Your task to perform on an android device: turn off data saver in the chrome app Image 0: 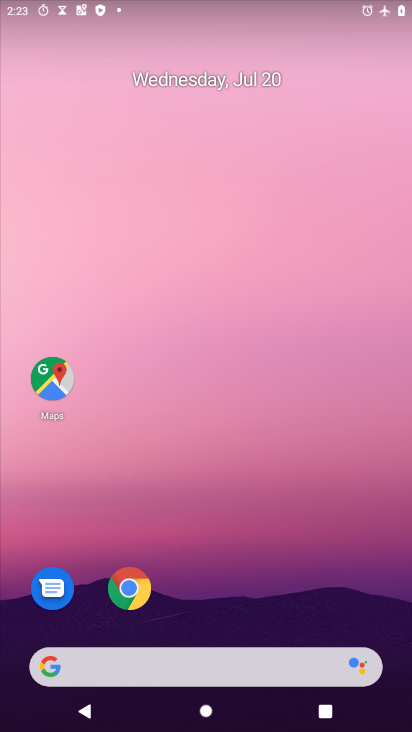
Step 0: drag from (227, 652) to (243, 37)
Your task to perform on an android device: turn off data saver in the chrome app Image 1: 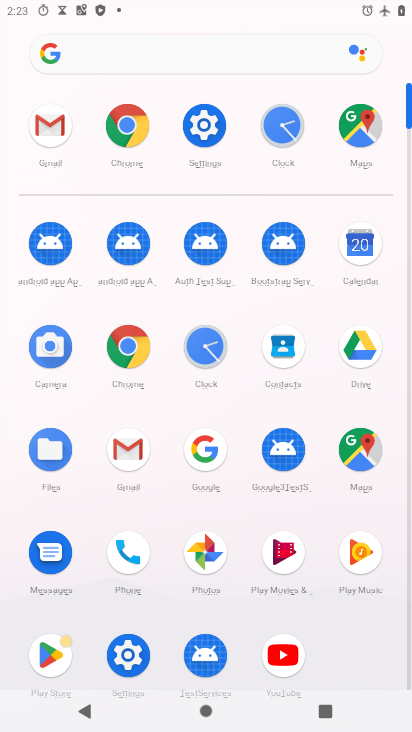
Step 1: click (113, 329)
Your task to perform on an android device: turn off data saver in the chrome app Image 2: 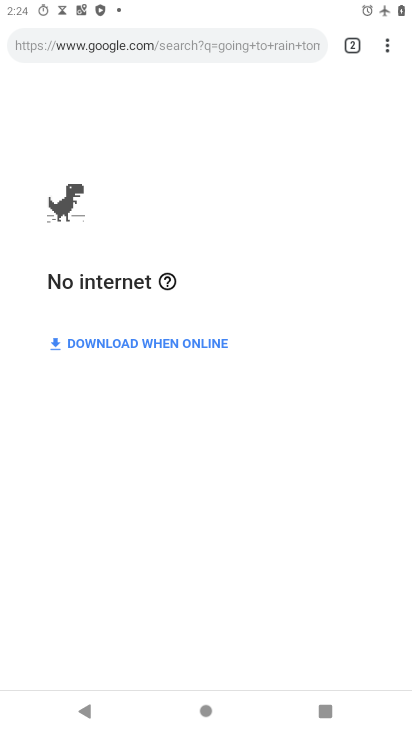
Step 2: drag from (378, 37) to (244, 508)
Your task to perform on an android device: turn off data saver in the chrome app Image 3: 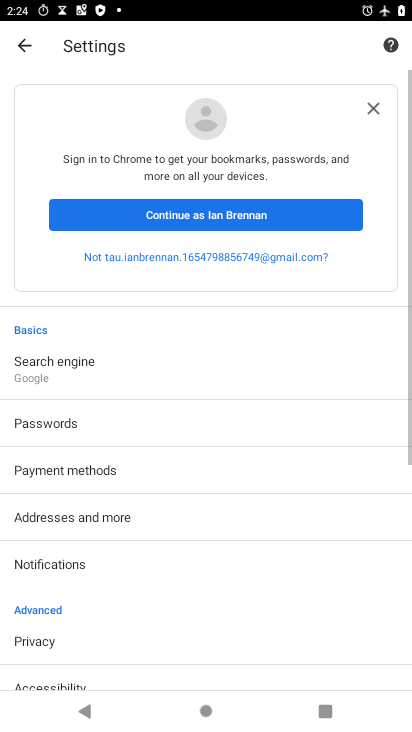
Step 3: drag from (149, 607) to (237, 185)
Your task to perform on an android device: turn off data saver in the chrome app Image 4: 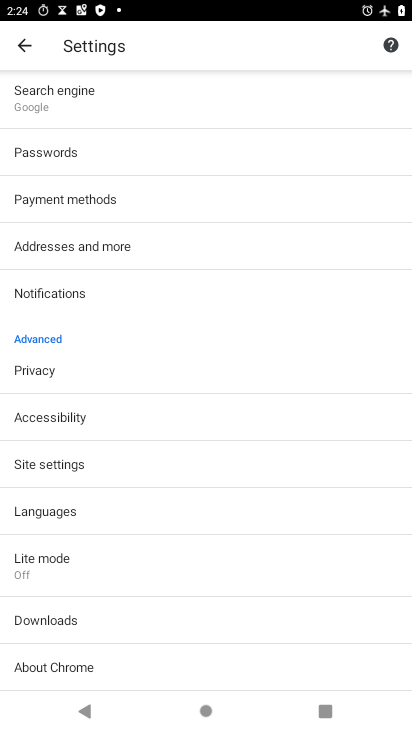
Step 4: click (66, 567)
Your task to perform on an android device: turn off data saver in the chrome app Image 5: 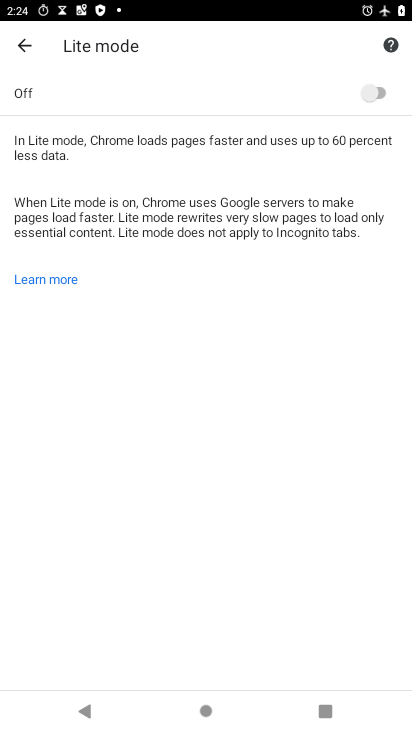
Step 5: task complete